Your task to perform on an android device: toggle priority inbox in the gmail app Image 0: 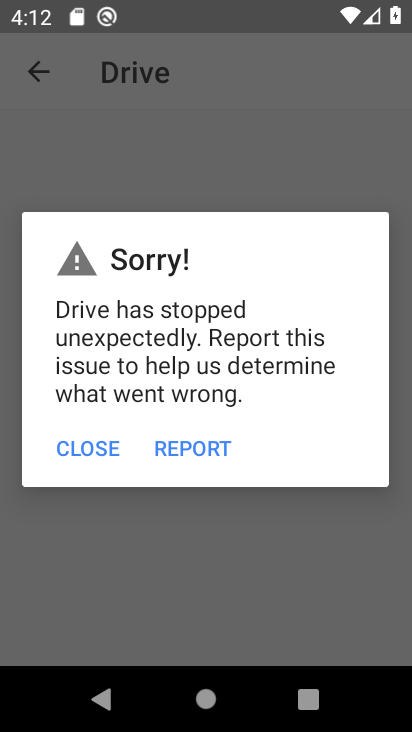
Step 0: press home button
Your task to perform on an android device: toggle priority inbox in the gmail app Image 1: 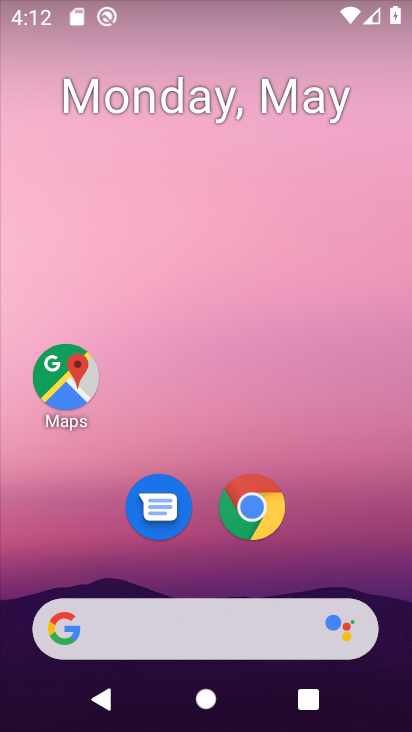
Step 1: drag from (335, 531) to (277, 0)
Your task to perform on an android device: toggle priority inbox in the gmail app Image 2: 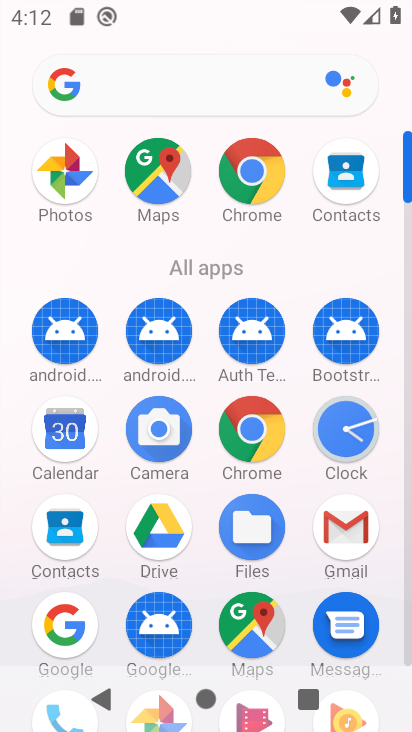
Step 2: click (360, 539)
Your task to perform on an android device: toggle priority inbox in the gmail app Image 3: 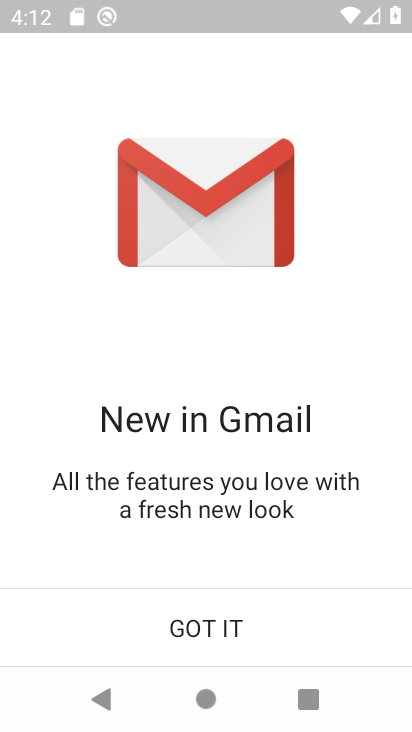
Step 3: click (158, 637)
Your task to perform on an android device: toggle priority inbox in the gmail app Image 4: 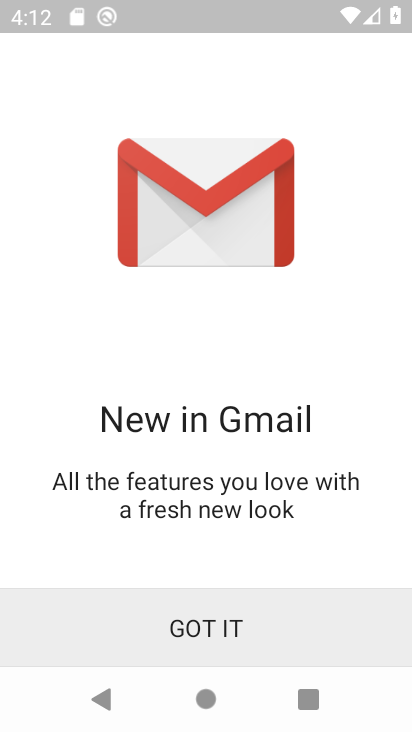
Step 4: click (158, 637)
Your task to perform on an android device: toggle priority inbox in the gmail app Image 5: 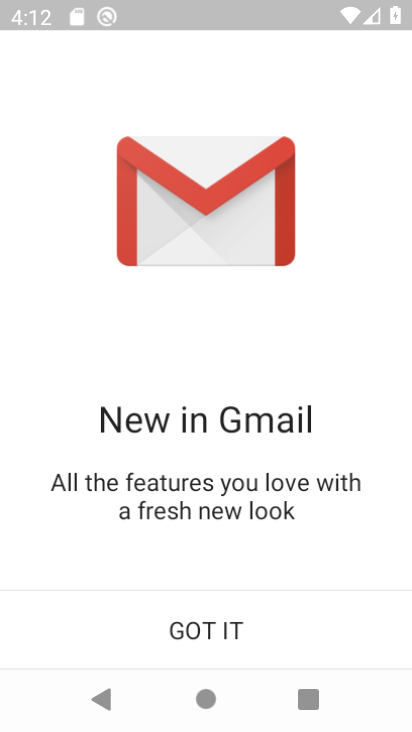
Step 5: click (158, 637)
Your task to perform on an android device: toggle priority inbox in the gmail app Image 6: 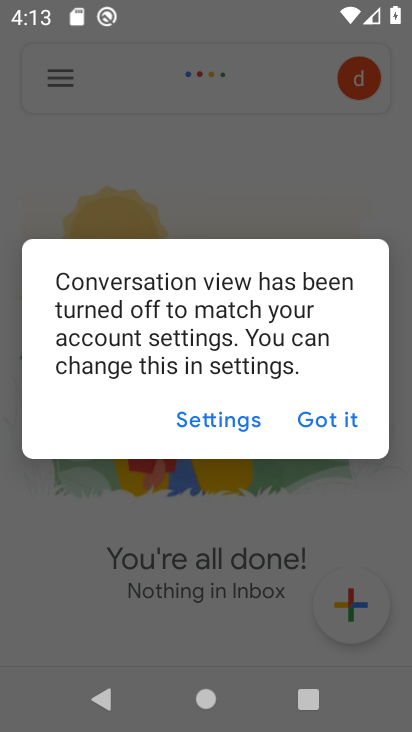
Step 6: click (324, 413)
Your task to perform on an android device: toggle priority inbox in the gmail app Image 7: 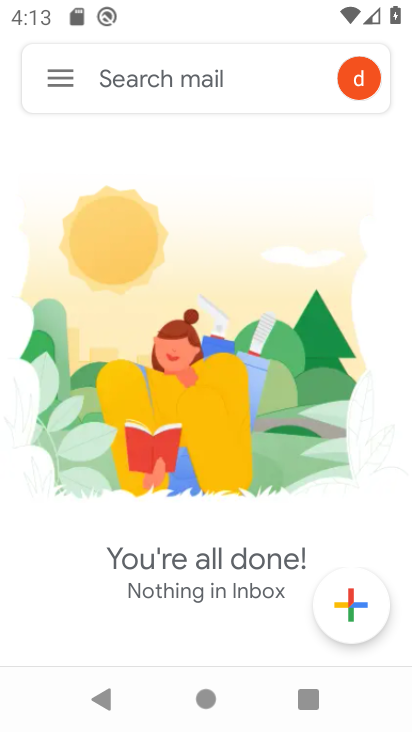
Step 7: click (48, 75)
Your task to perform on an android device: toggle priority inbox in the gmail app Image 8: 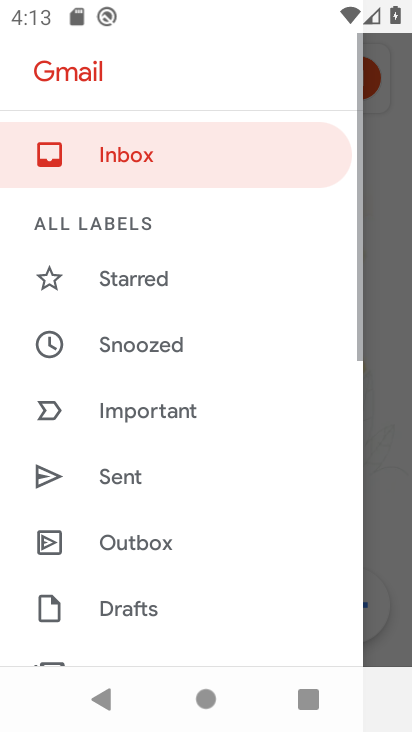
Step 8: drag from (187, 600) to (236, 41)
Your task to perform on an android device: toggle priority inbox in the gmail app Image 9: 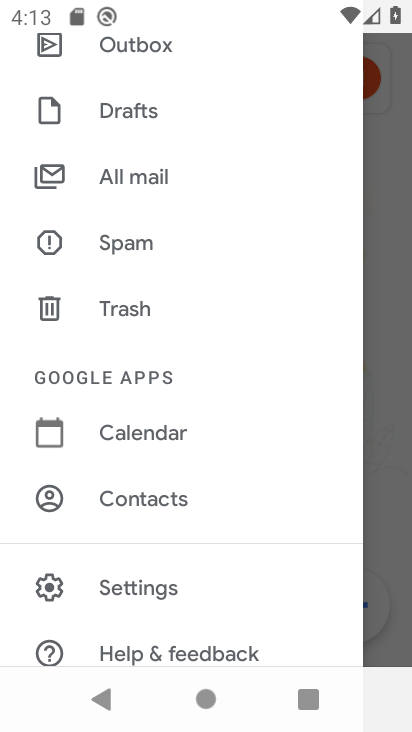
Step 9: click (141, 571)
Your task to perform on an android device: toggle priority inbox in the gmail app Image 10: 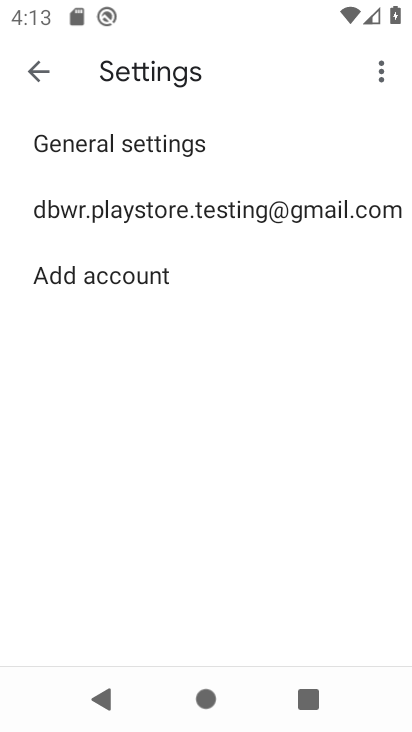
Step 10: click (157, 200)
Your task to perform on an android device: toggle priority inbox in the gmail app Image 11: 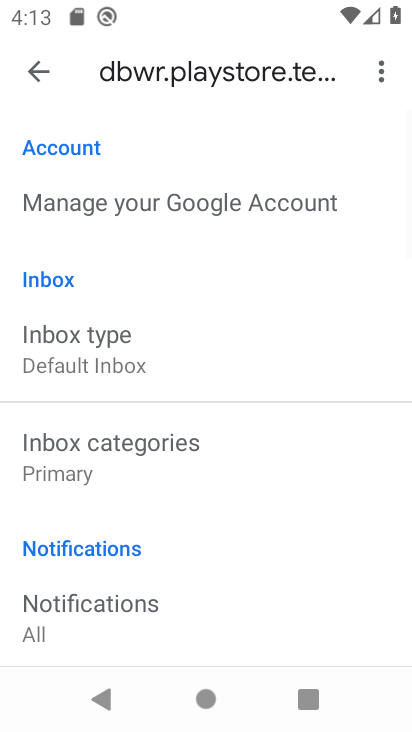
Step 11: click (183, 363)
Your task to perform on an android device: toggle priority inbox in the gmail app Image 12: 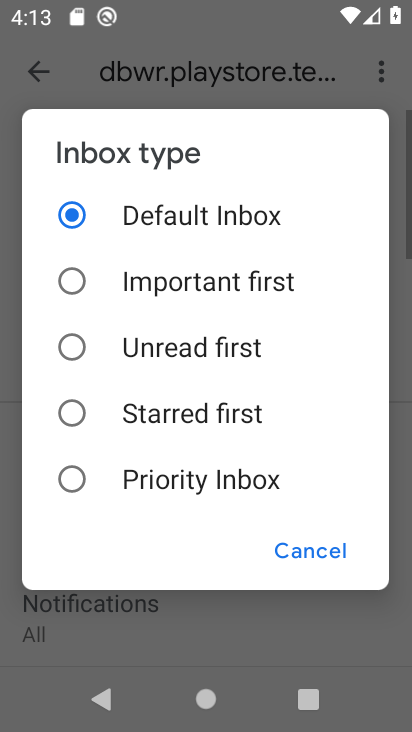
Step 12: click (161, 489)
Your task to perform on an android device: toggle priority inbox in the gmail app Image 13: 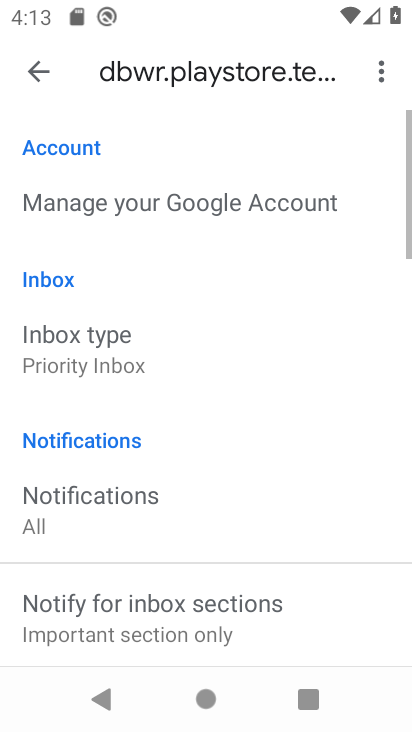
Step 13: task complete